Your task to perform on an android device: What's on my calendar tomorrow? Image 0: 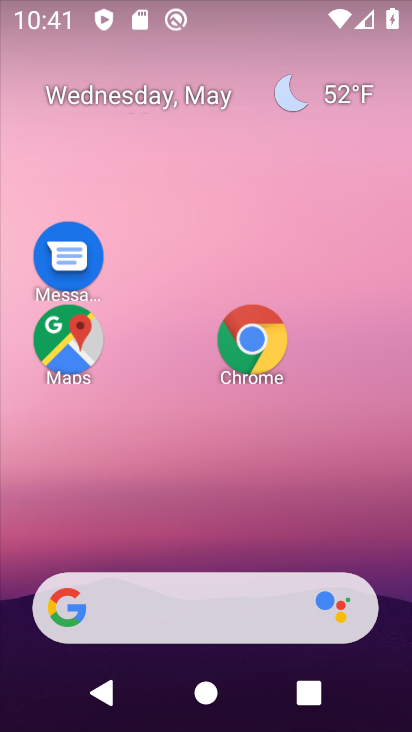
Step 0: drag from (200, 514) to (208, 95)
Your task to perform on an android device: What's on my calendar tomorrow? Image 1: 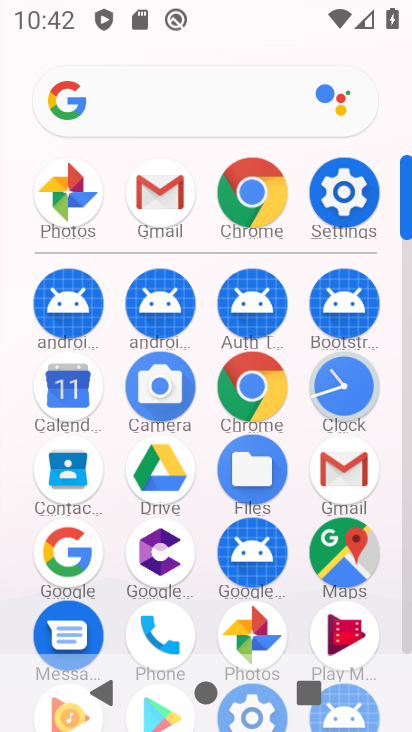
Step 1: click (63, 394)
Your task to perform on an android device: What's on my calendar tomorrow? Image 2: 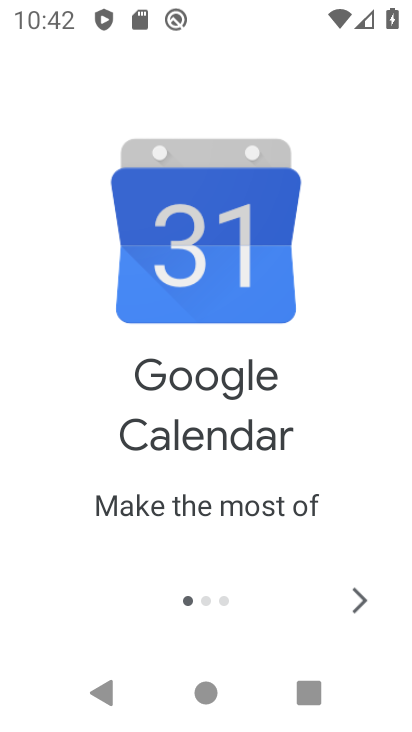
Step 2: click (346, 602)
Your task to perform on an android device: What's on my calendar tomorrow? Image 3: 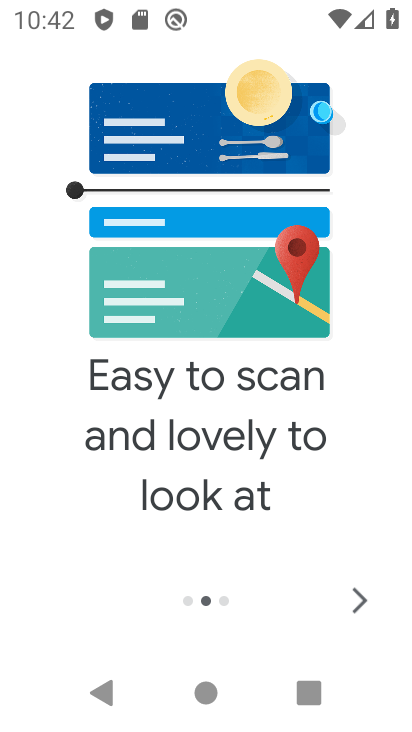
Step 3: click (346, 602)
Your task to perform on an android device: What's on my calendar tomorrow? Image 4: 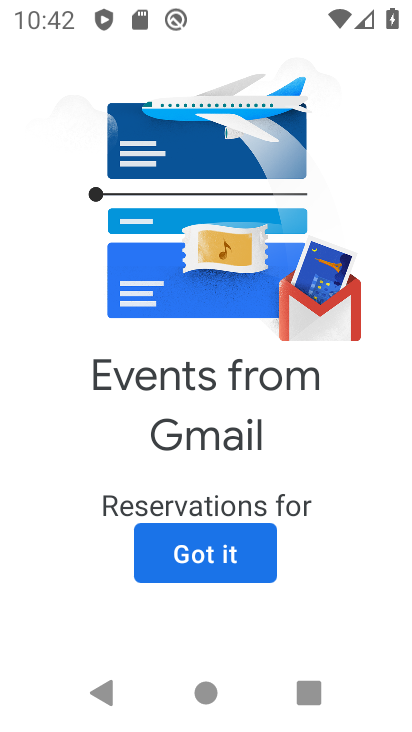
Step 4: click (346, 602)
Your task to perform on an android device: What's on my calendar tomorrow? Image 5: 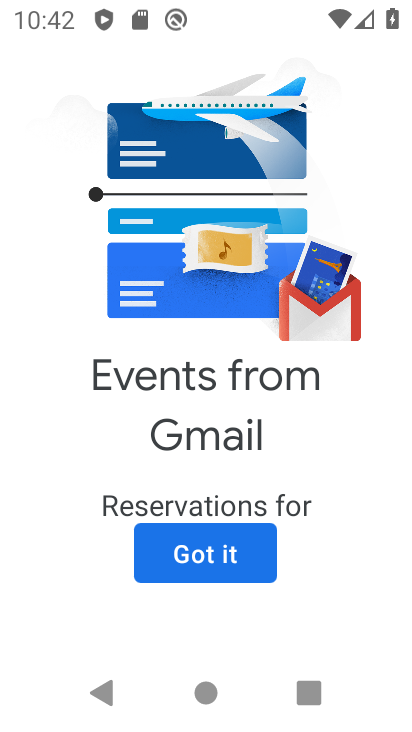
Step 5: click (179, 570)
Your task to perform on an android device: What's on my calendar tomorrow? Image 6: 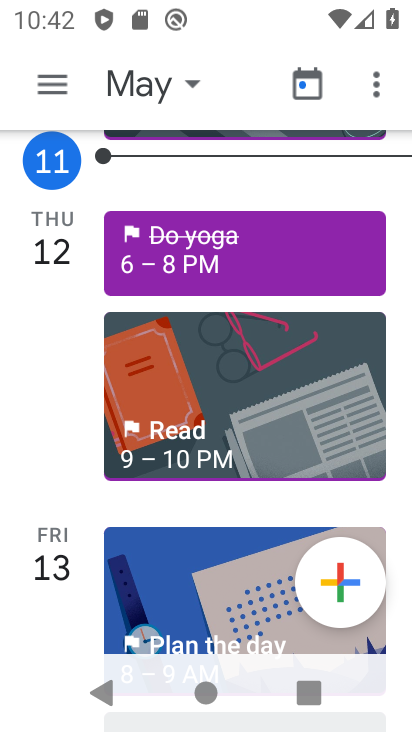
Step 6: click (159, 91)
Your task to perform on an android device: What's on my calendar tomorrow? Image 7: 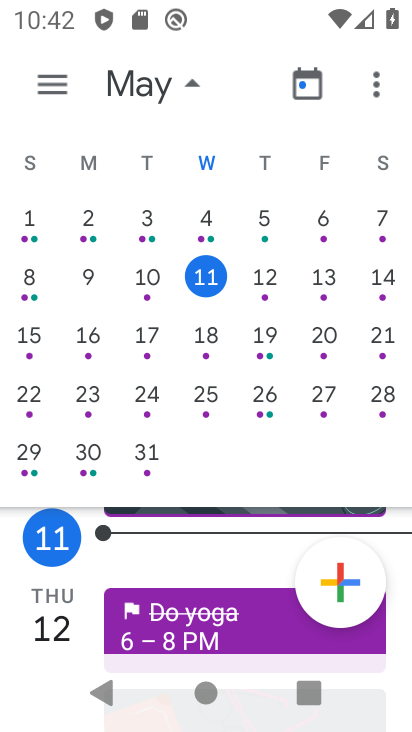
Step 7: click (259, 271)
Your task to perform on an android device: What's on my calendar tomorrow? Image 8: 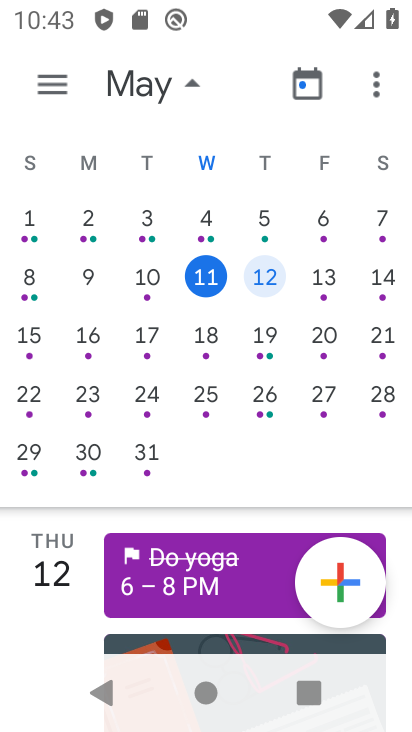
Step 8: task complete